Your task to perform on an android device: Go to display settings Image 0: 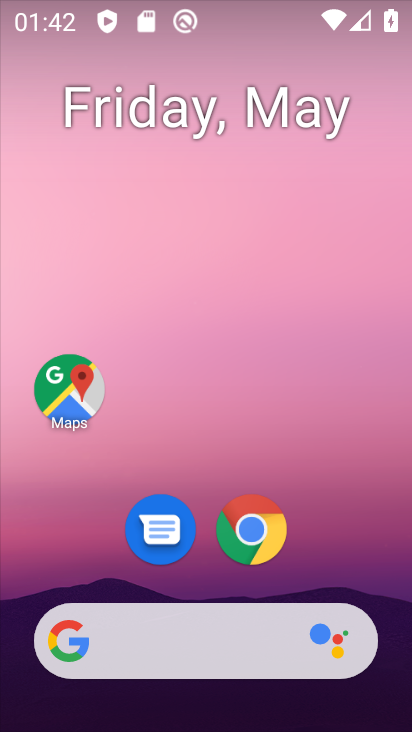
Step 0: drag from (326, 452) to (320, 36)
Your task to perform on an android device: Go to display settings Image 1: 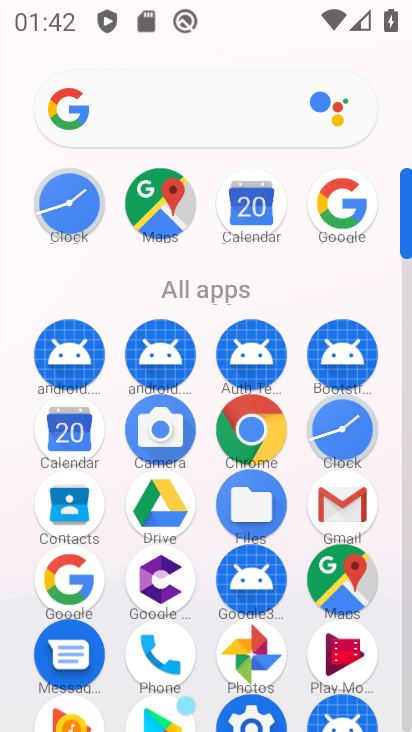
Step 1: drag from (256, 596) to (264, 185)
Your task to perform on an android device: Go to display settings Image 2: 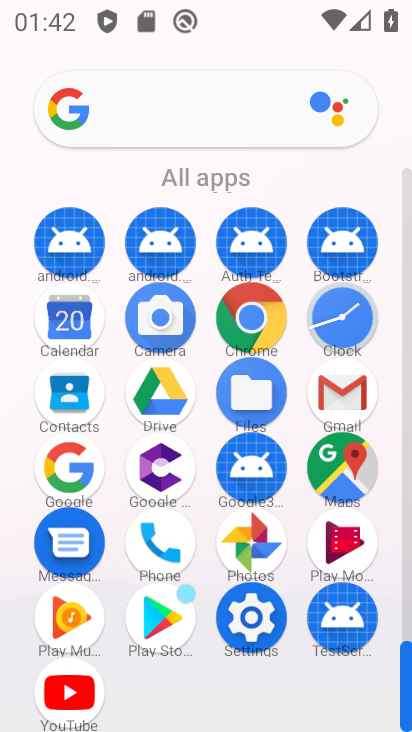
Step 2: click (242, 616)
Your task to perform on an android device: Go to display settings Image 3: 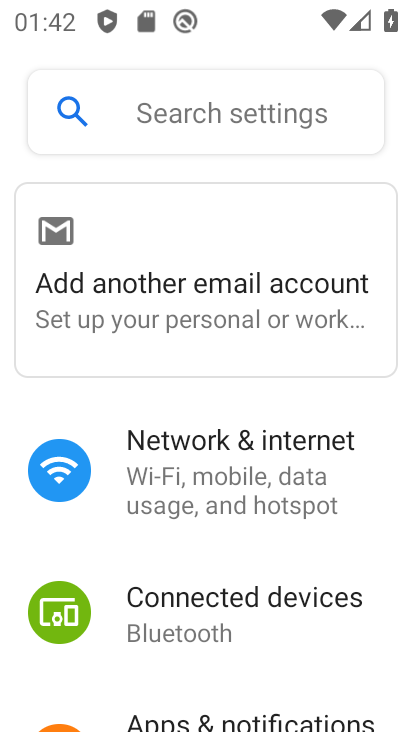
Step 3: drag from (273, 655) to (244, 69)
Your task to perform on an android device: Go to display settings Image 4: 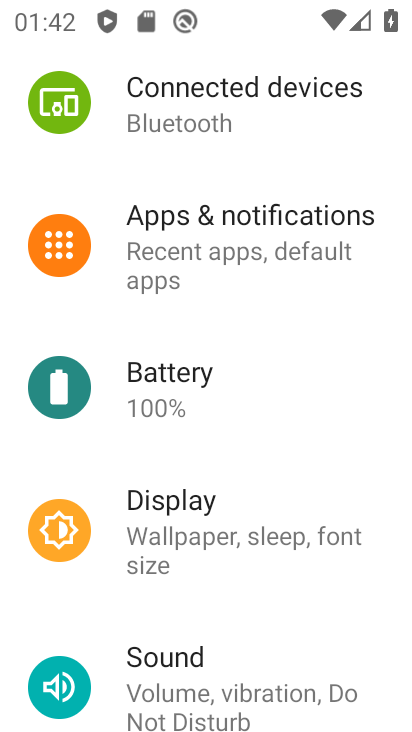
Step 4: click (236, 526)
Your task to perform on an android device: Go to display settings Image 5: 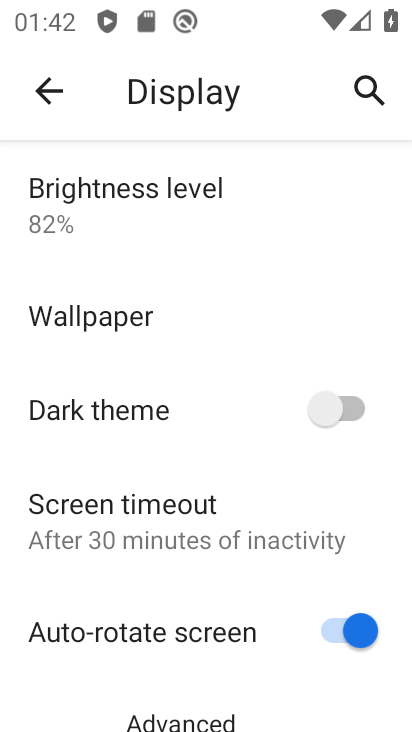
Step 5: task complete